Your task to perform on an android device: Go to Wikipedia Image 0: 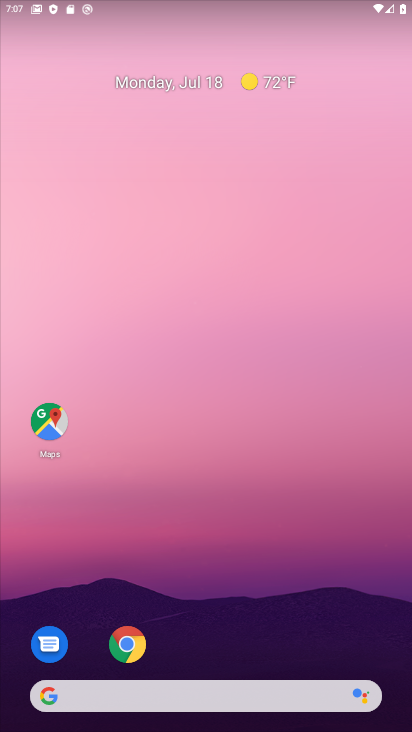
Step 0: drag from (345, 640) to (229, 101)
Your task to perform on an android device: Go to Wikipedia Image 1: 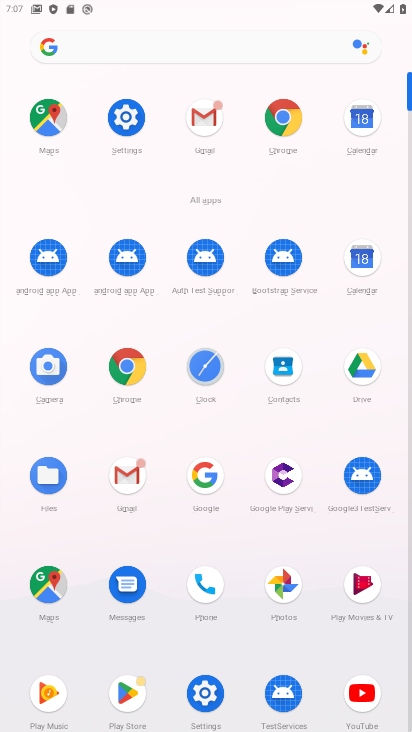
Step 1: click (207, 476)
Your task to perform on an android device: Go to Wikipedia Image 2: 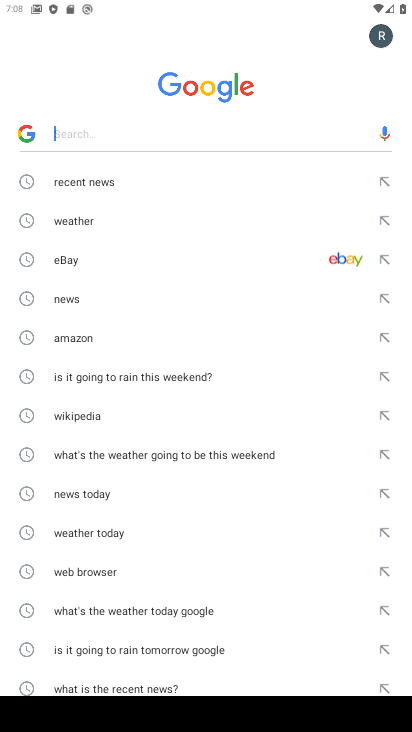
Step 2: click (51, 425)
Your task to perform on an android device: Go to Wikipedia Image 3: 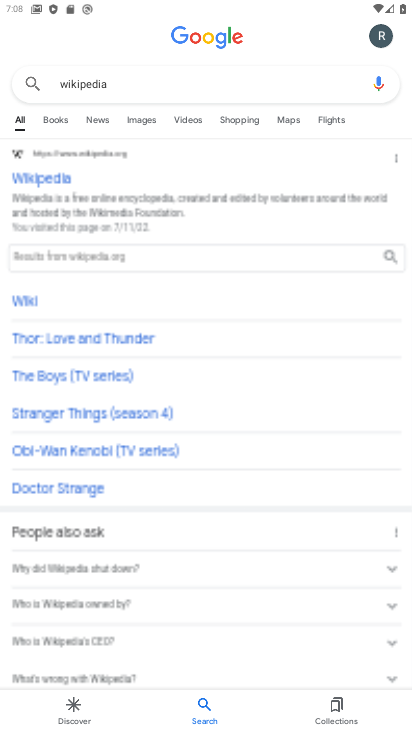
Step 3: task complete